Your task to perform on an android device: turn off airplane mode Image 0: 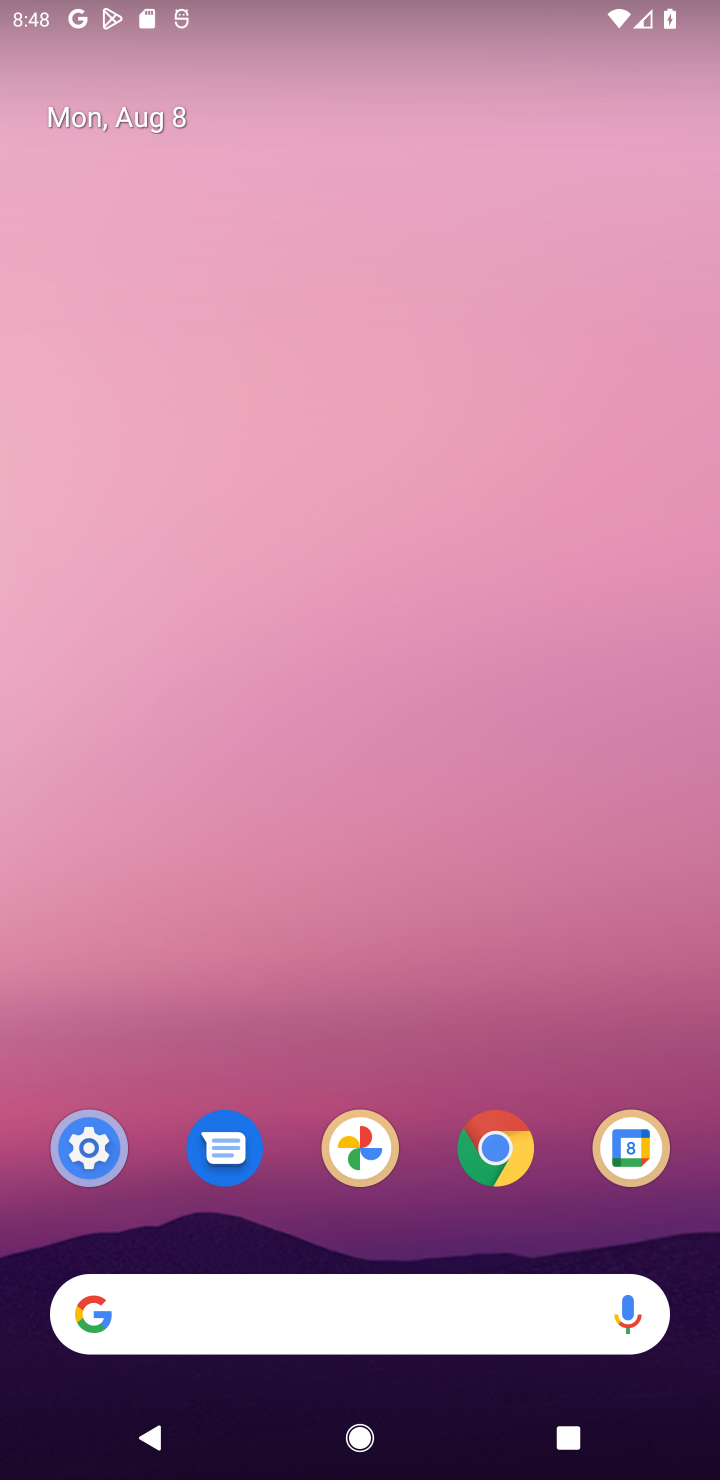
Step 0: drag from (345, 1293) to (343, 377)
Your task to perform on an android device: turn off airplane mode Image 1: 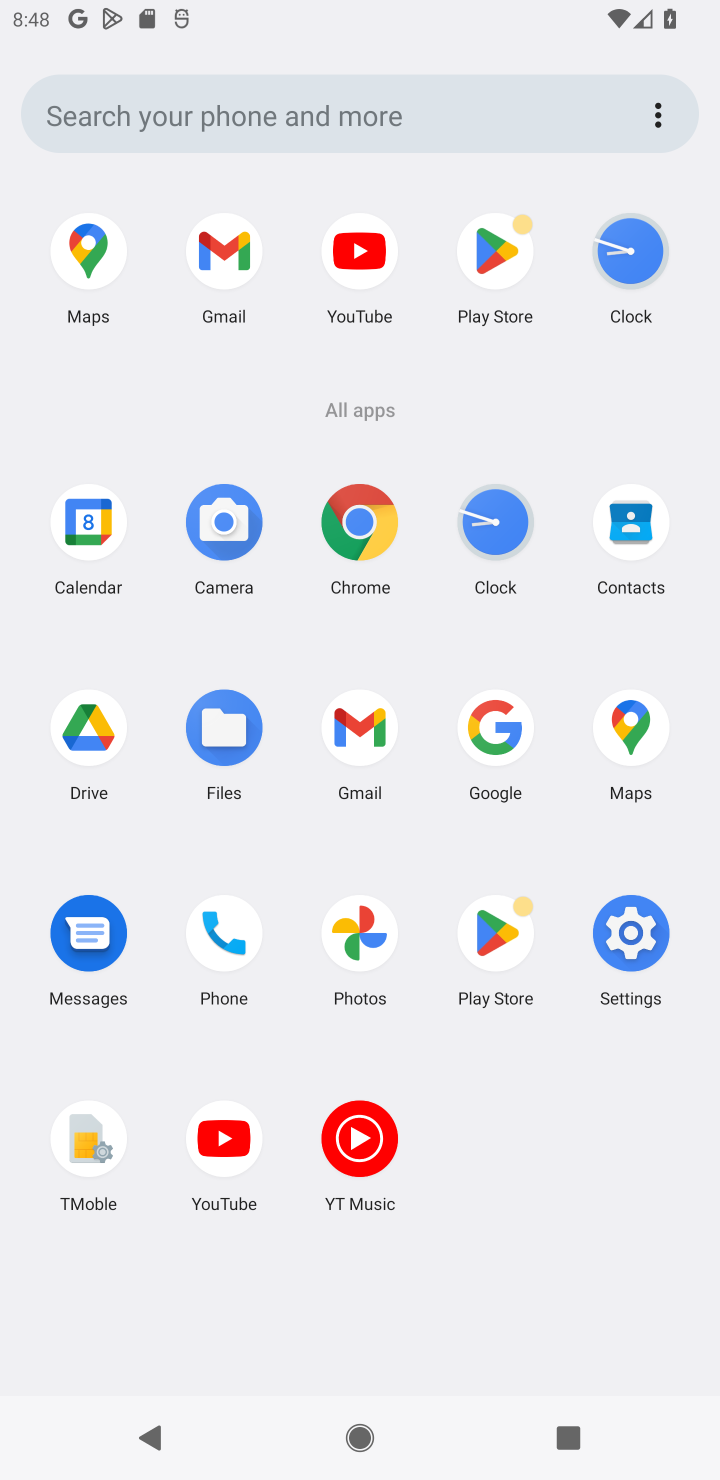
Step 1: click (628, 930)
Your task to perform on an android device: turn off airplane mode Image 2: 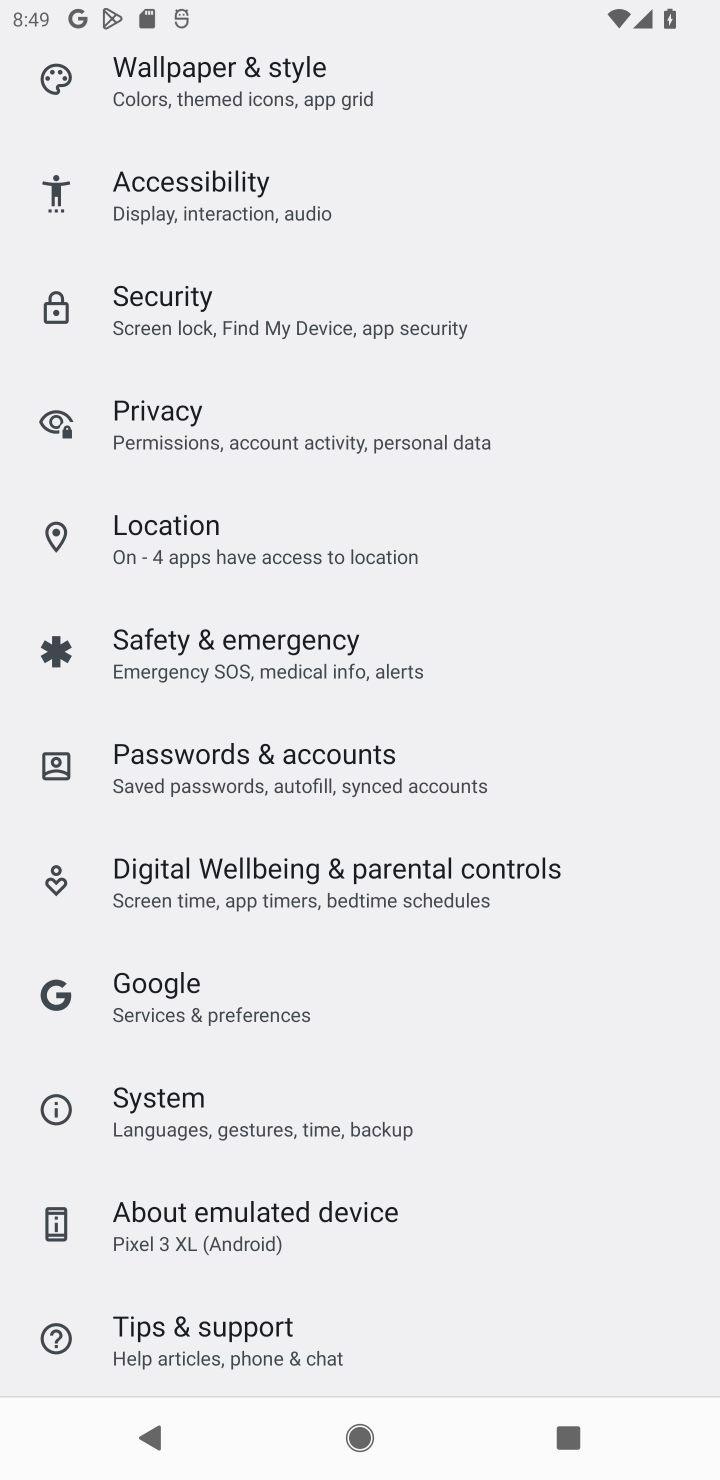
Step 2: drag from (344, 234) to (556, 1332)
Your task to perform on an android device: turn off airplane mode Image 3: 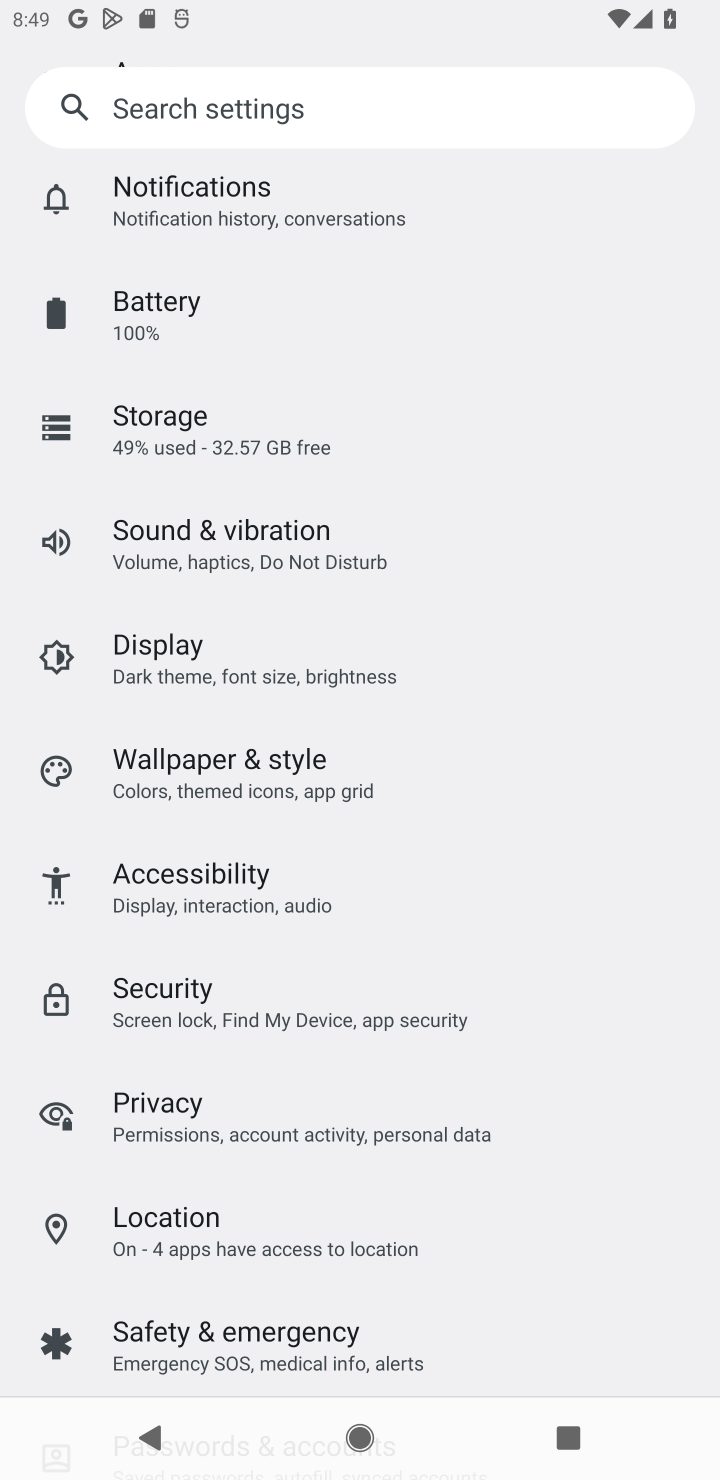
Step 3: drag from (488, 350) to (485, 1179)
Your task to perform on an android device: turn off airplane mode Image 4: 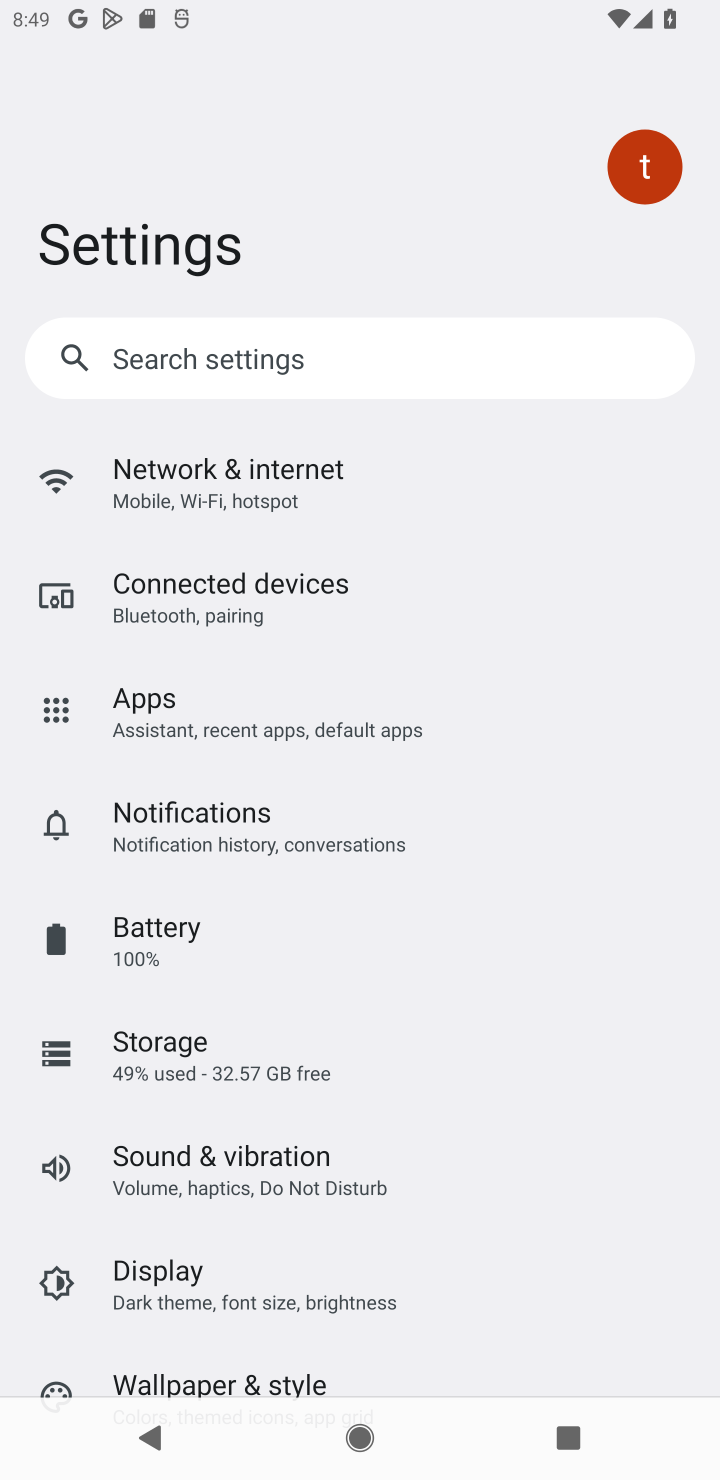
Step 4: click (261, 494)
Your task to perform on an android device: turn off airplane mode Image 5: 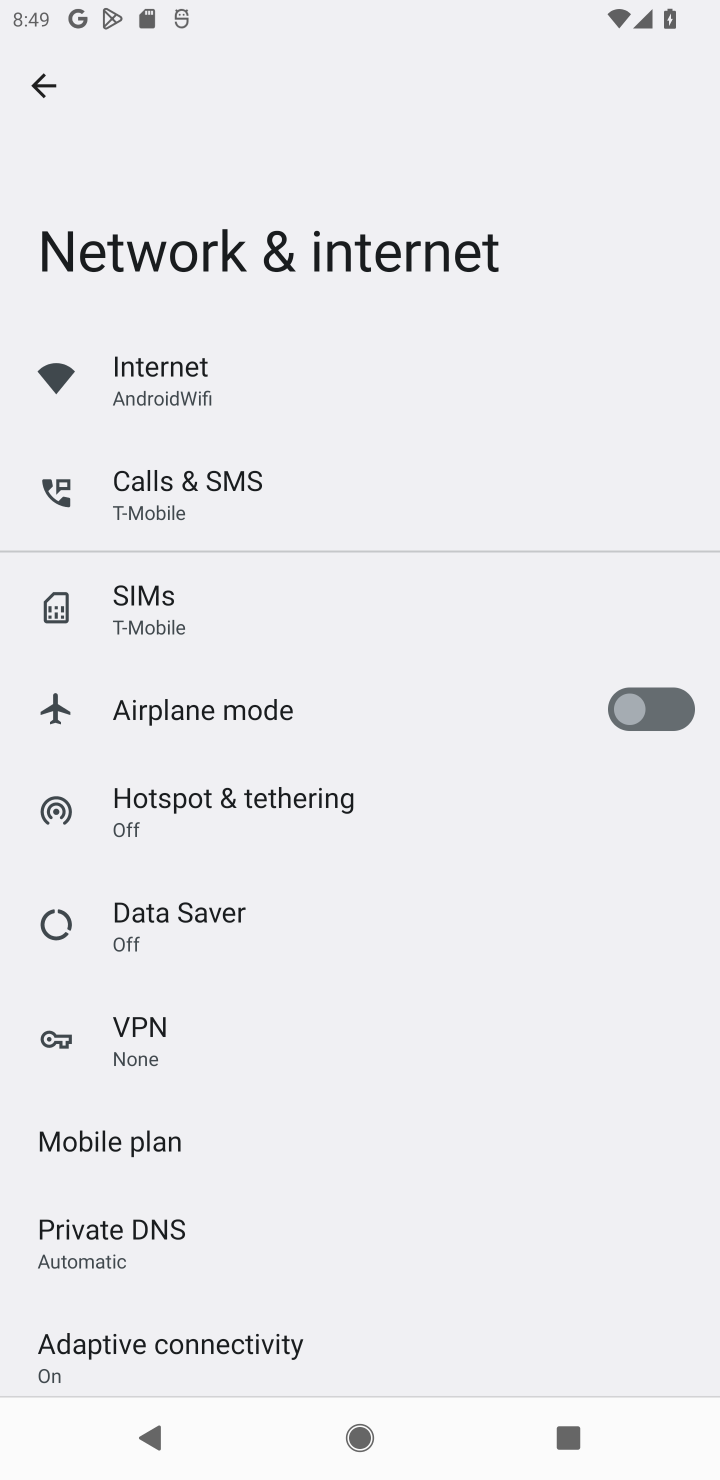
Step 5: task complete